Your task to perform on an android device: Turn on the flashlight Image 0: 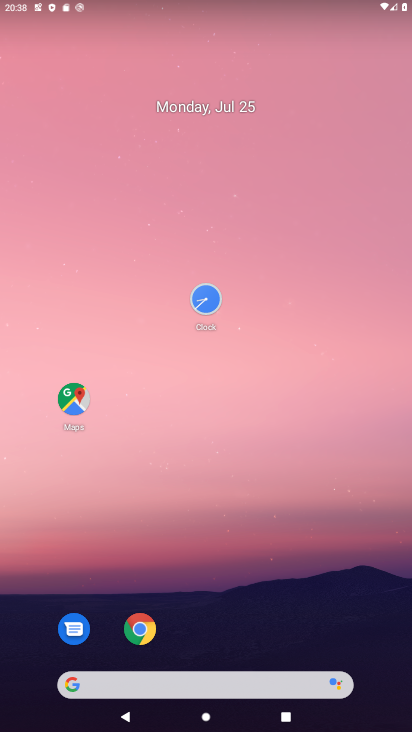
Step 0: drag from (225, 623) to (199, 208)
Your task to perform on an android device: Turn on the flashlight Image 1: 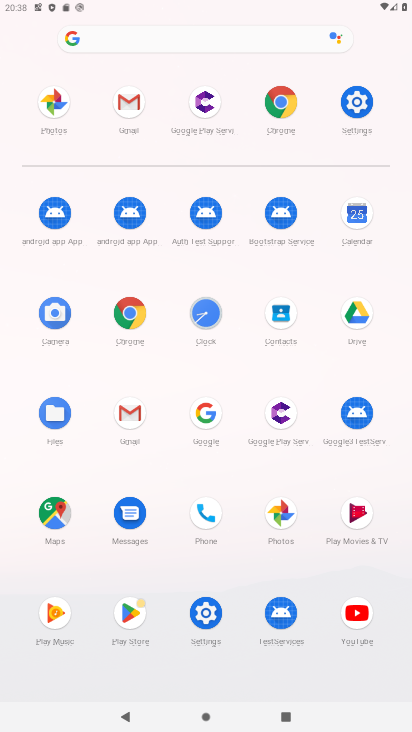
Step 1: click (364, 103)
Your task to perform on an android device: Turn on the flashlight Image 2: 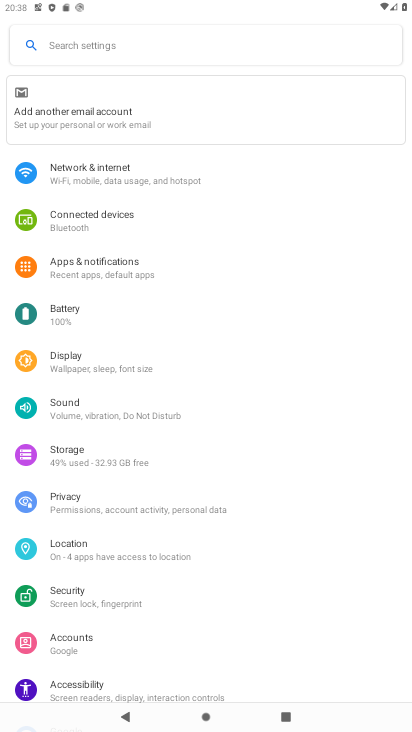
Step 2: click (95, 45)
Your task to perform on an android device: Turn on the flashlight Image 3: 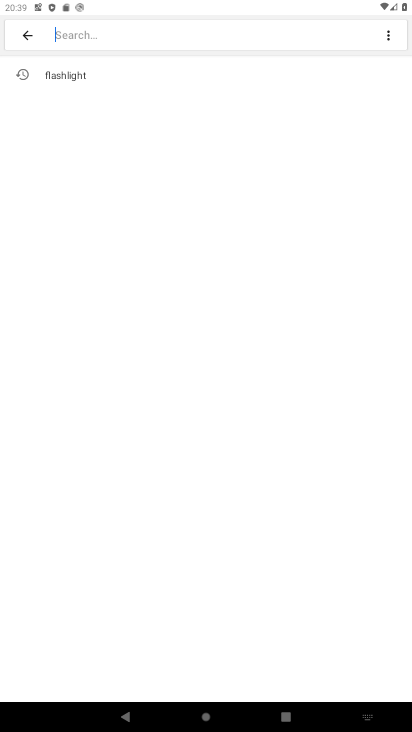
Step 3: type "flashlight"
Your task to perform on an android device: Turn on the flashlight Image 4: 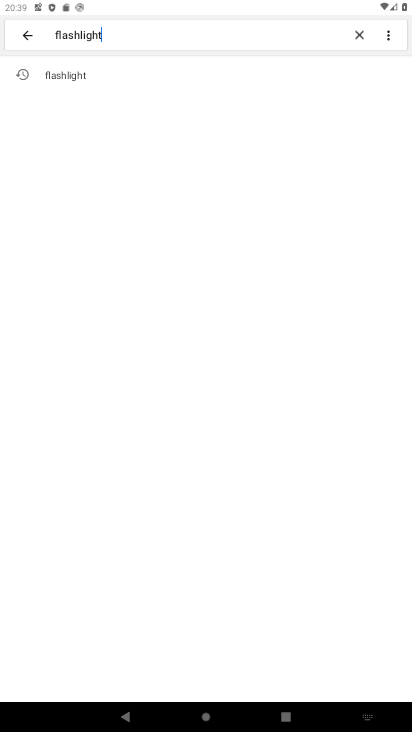
Step 4: click (72, 74)
Your task to perform on an android device: Turn on the flashlight Image 5: 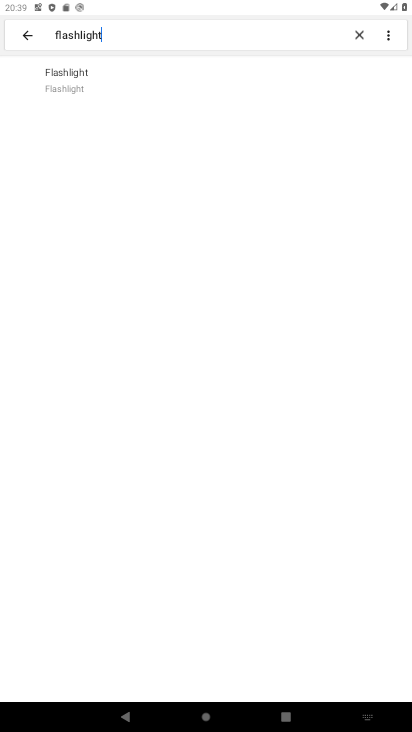
Step 5: click (76, 74)
Your task to perform on an android device: Turn on the flashlight Image 6: 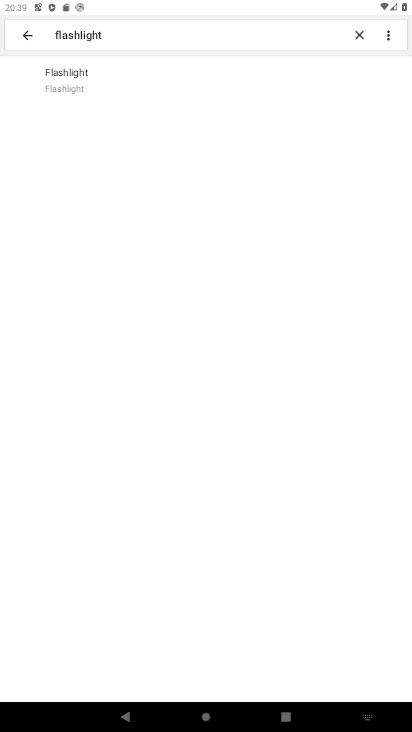
Step 6: task complete